Your task to perform on an android device: Go to Amazon Image 0: 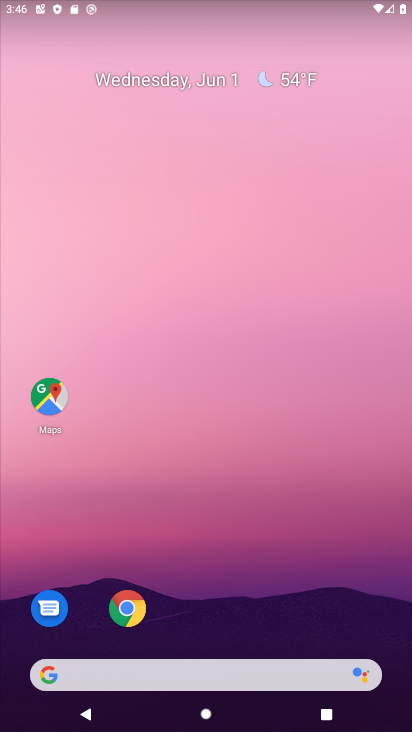
Step 0: click (124, 618)
Your task to perform on an android device: Go to Amazon Image 1: 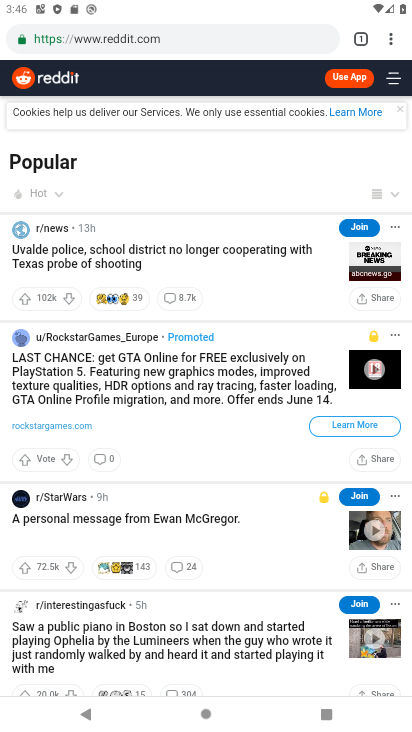
Step 1: click (366, 41)
Your task to perform on an android device: Go to Amazon Image 2: 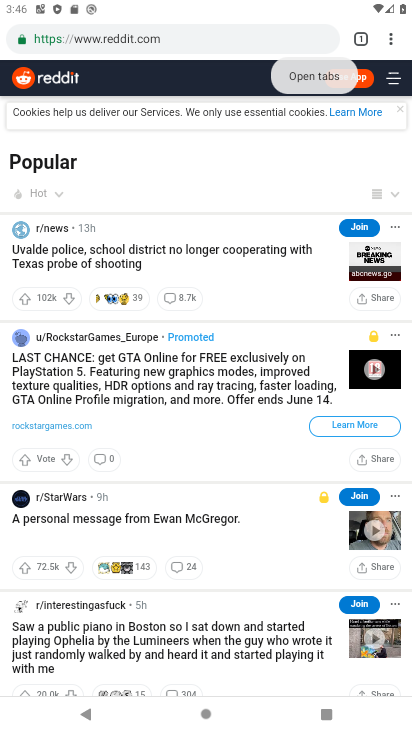
Step 2: click (361, 49)
Your task to perform on an android device: Go to Amazon Image 3: 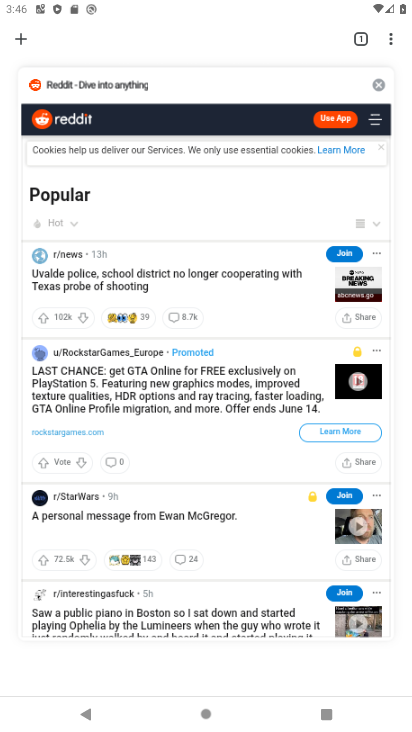
Step 3: click (376, 86)
Your task to perform on an android device: Go to Amazon Image 4: 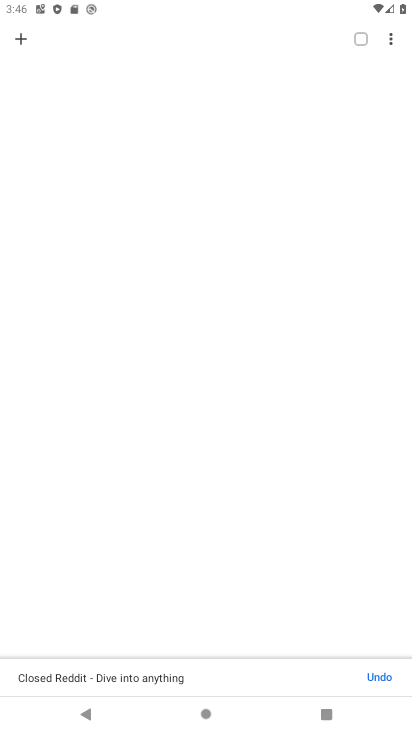
Step 4: click (21, 50)
Your task to perform on an android device: Go to Amazon Image 5: 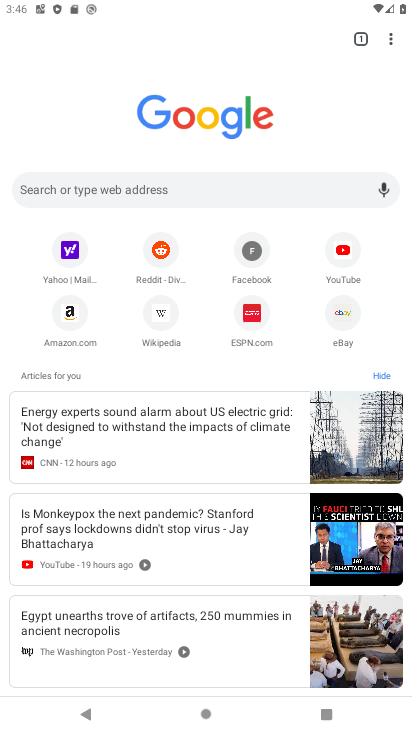
Step 5: click (80, 317)
Your task to perform on an android device: Go to Amazon Image 6: 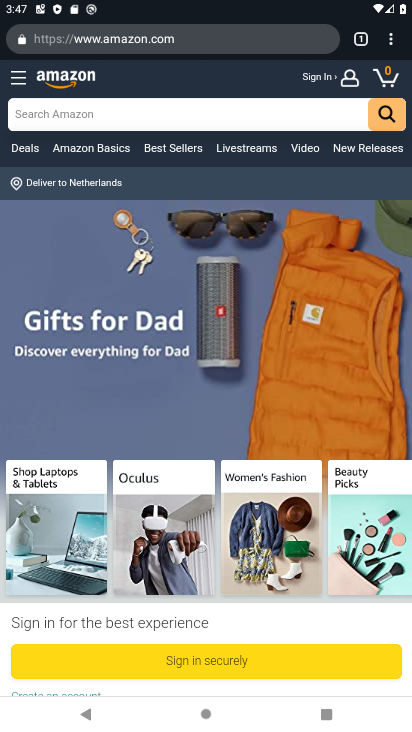
Step 6: task complete